Your task to perform on an android device: Go to accessibility settings Image 0: 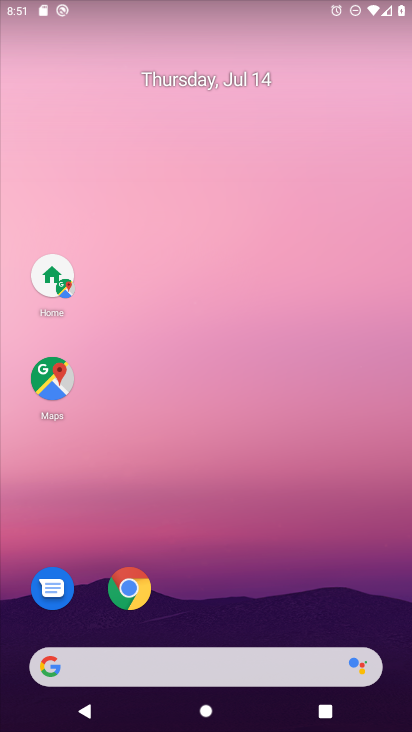
Step 0: drag from (115, 343) to (197, 102)
Your task to perform on an android device: Go to accessibility settings Image 1: 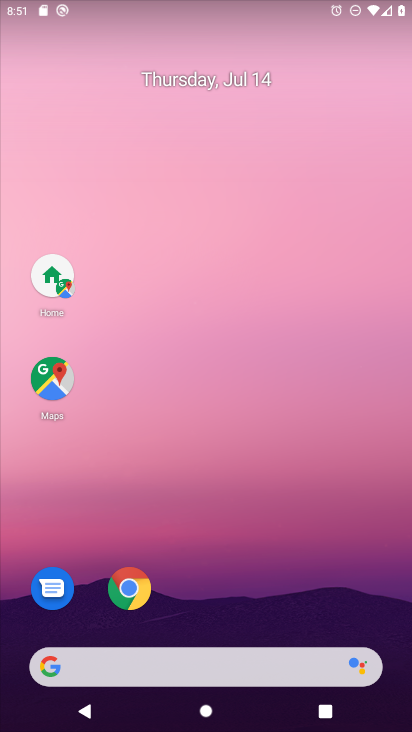
Step 1: drag from (117, 424) to (224, 131)
Your task to perform on an android device: Go to accessibility settings Image 2: 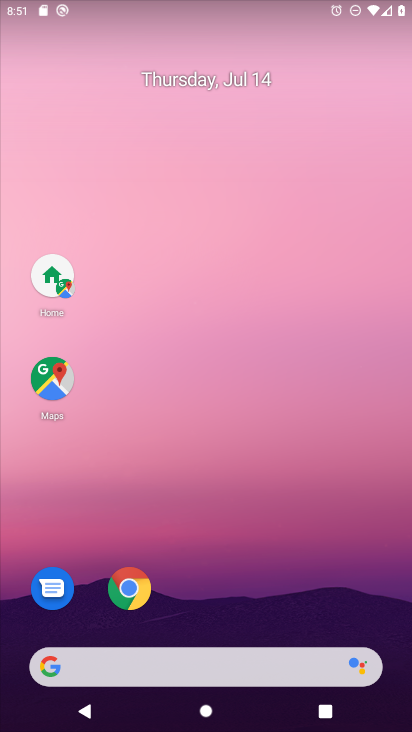
Step 2: drag from (28, 719) to (265, 6)
Your task to perform on an android device: Go to accessibility settings Image 3: 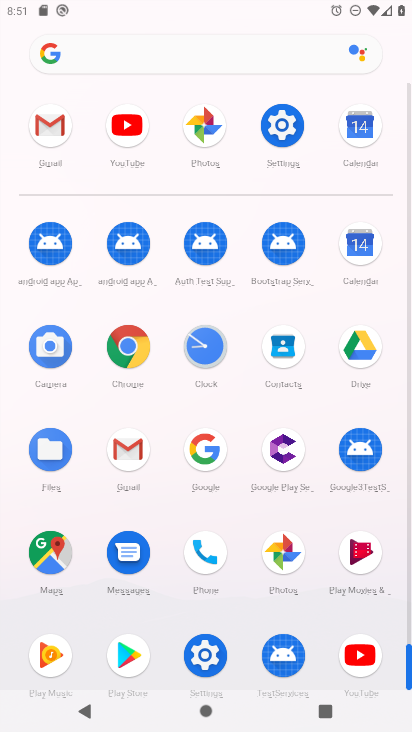
Step 3: click (194, 650)
Your task to perform on an android device: Go to accessibility settings Image 4: 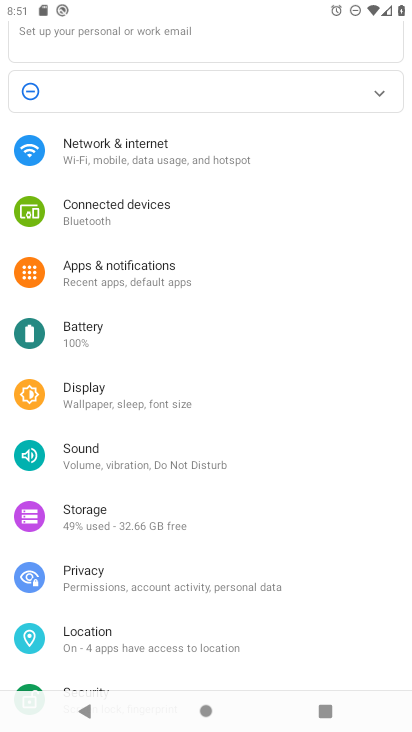
Step 4: drag from (318, 632) to (411, 136)
Your task to perform on an android device: Go to accessibility settings Image 5: 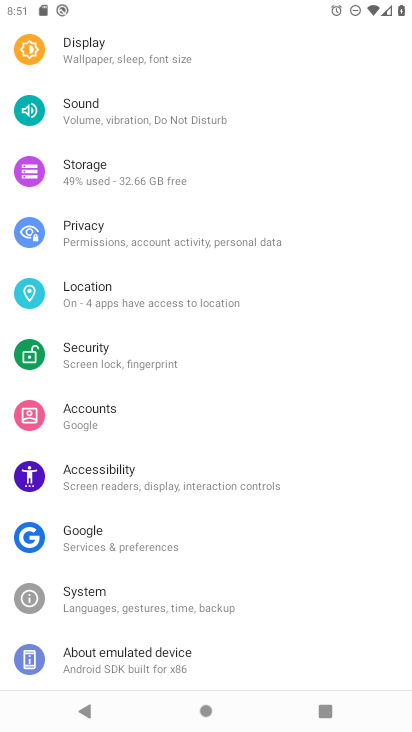
Step 5: click (112, 472)
Your task to perform on an android device: Go to accessibility settings Image 6: 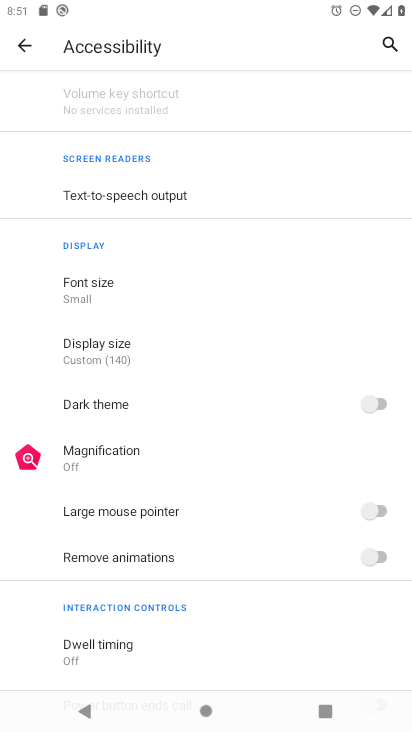
Step 6: task complete